Your task to perform on an android device: open app "Fetch Rewards" Image 0: 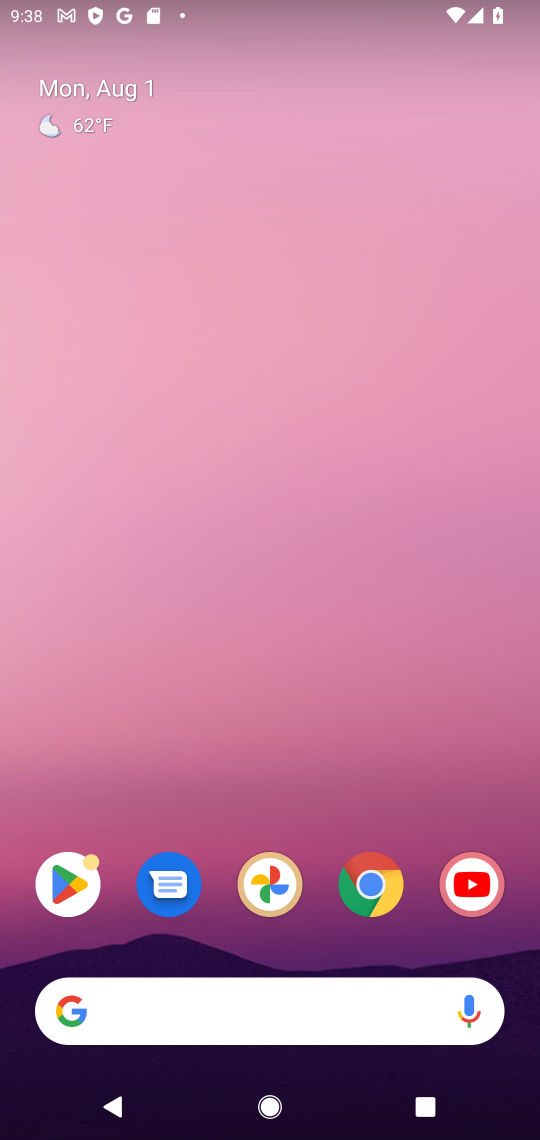
Step 0: click (63, 876)
Your task to perform on an android device: open app "Fetch Rewards" Image 1: 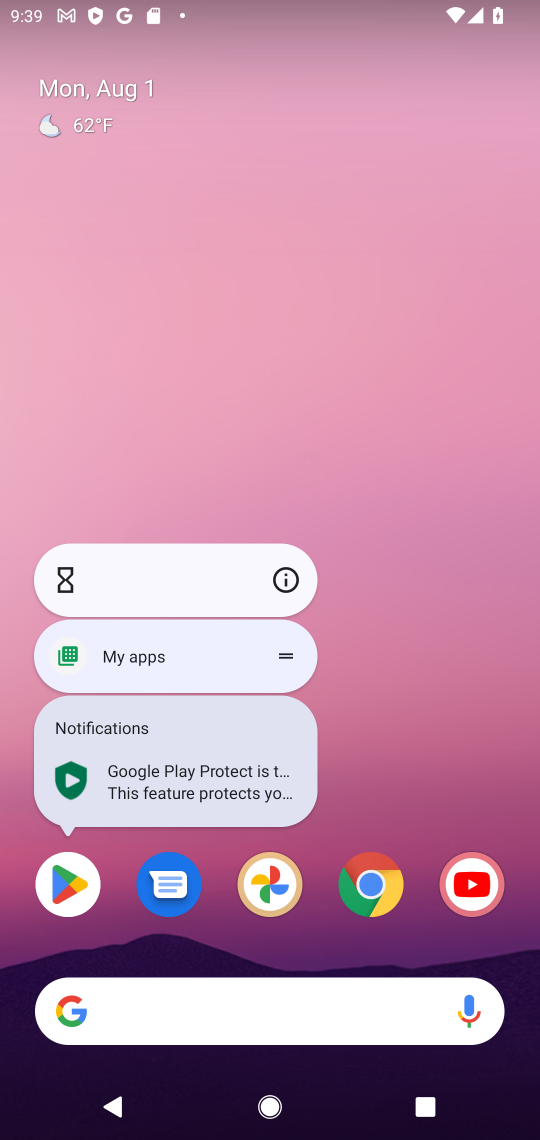
Step 1: click (63, 876)
Your task to perform on an android device: open app "Fetch Rewards" Image 2: 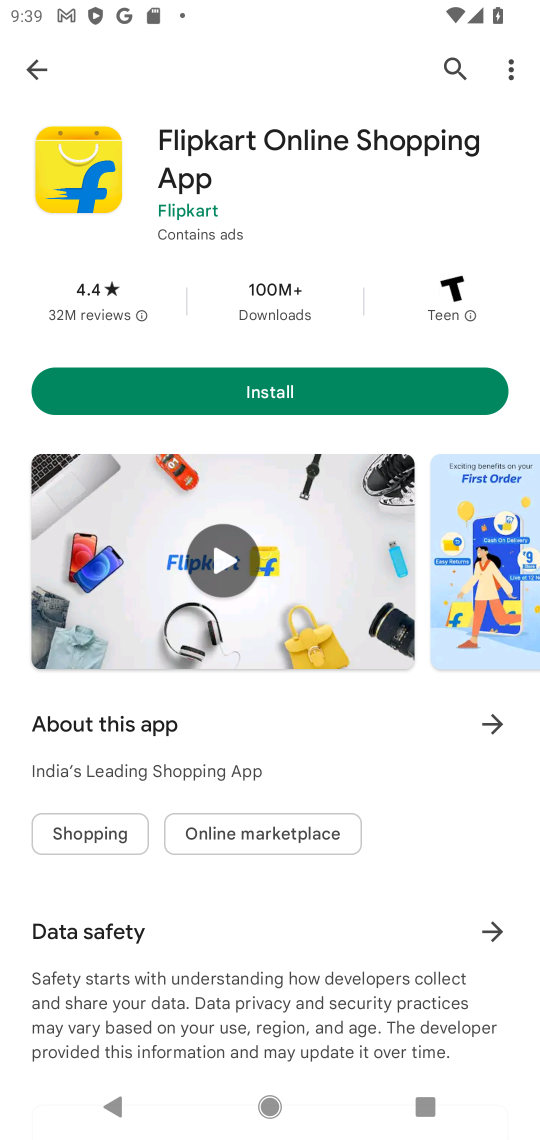
Step 2: click (474, 57)
Your task to perform on an android device: open app "Fetch Rewards" Image 3: 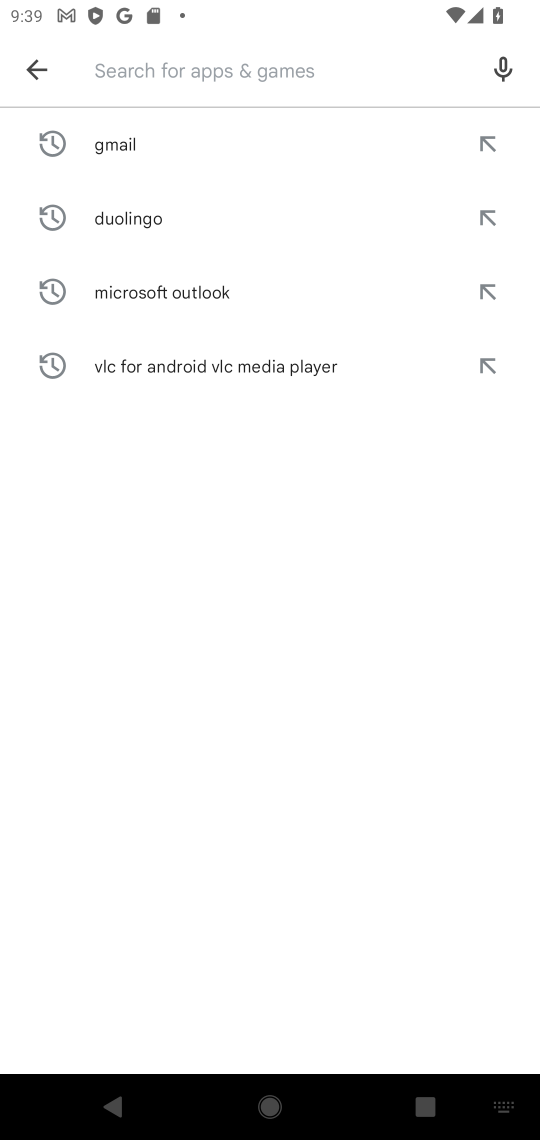
Step 3: type "fetch"
Your task to perform on an android device: open app "Fetch Rewards" Image 4: 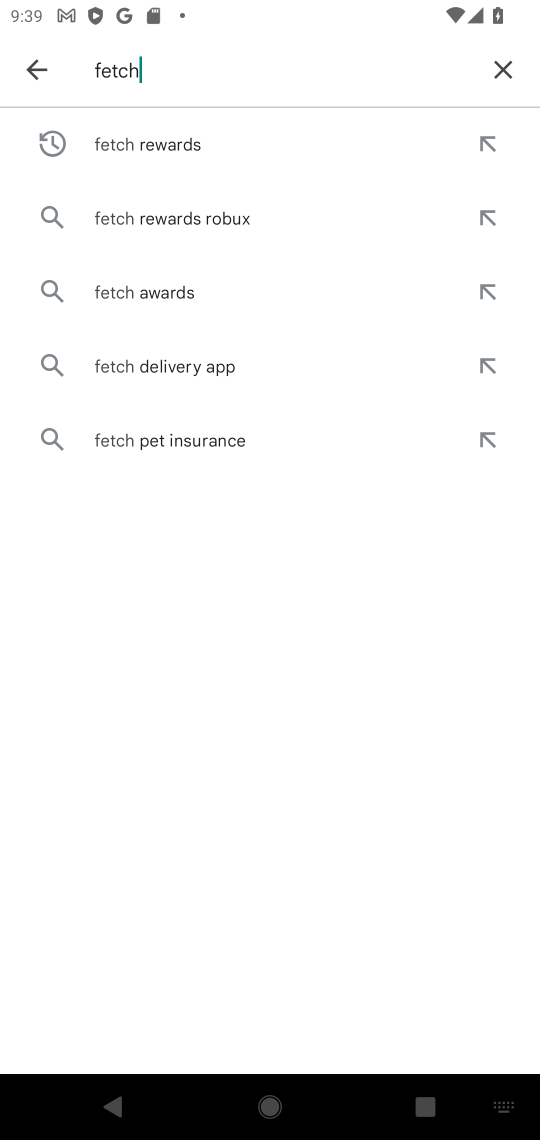
Step 4: click (142, 126)
Your task to perform on an android device: open app "Fetch Rewards" Image 5: 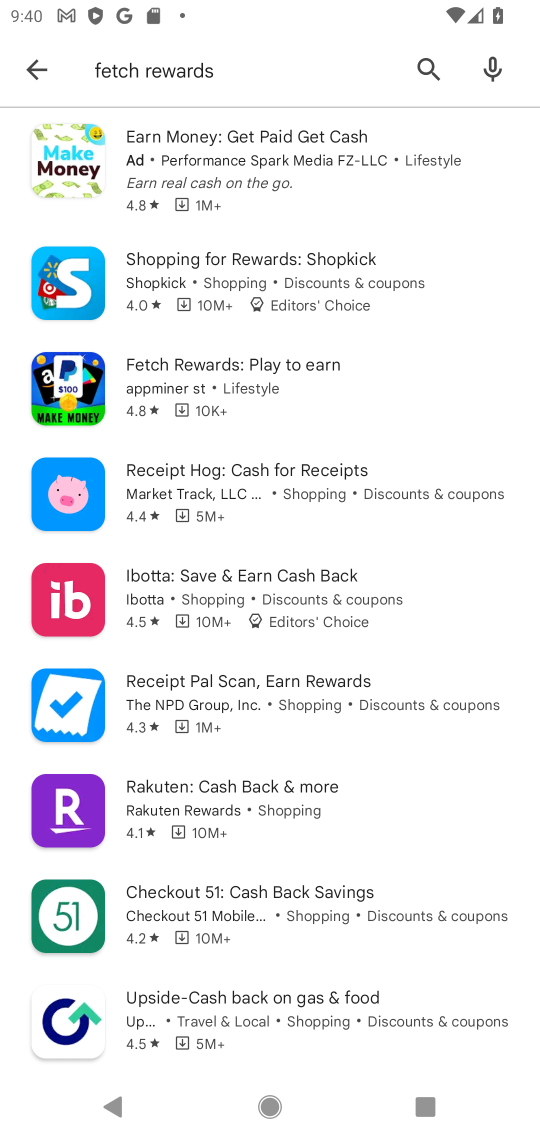
Step 5: task complete